Your task to perform on an android device: Toggle the flashlight Image 0: 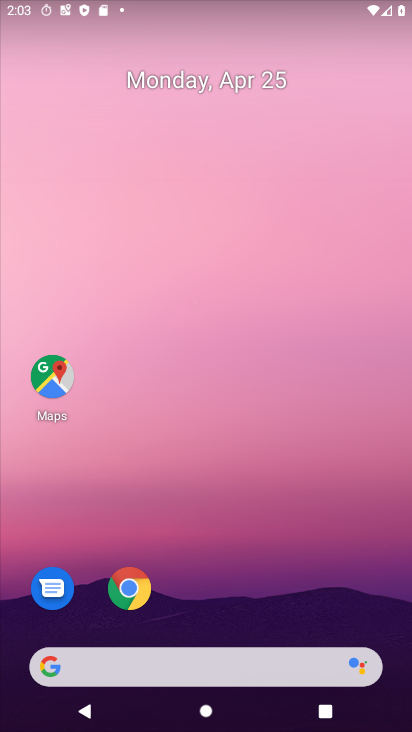
Step 0: drag from (267, 589) to (261, 247)
Your task to perform on an android device: Toggle the flashlight Image 1: 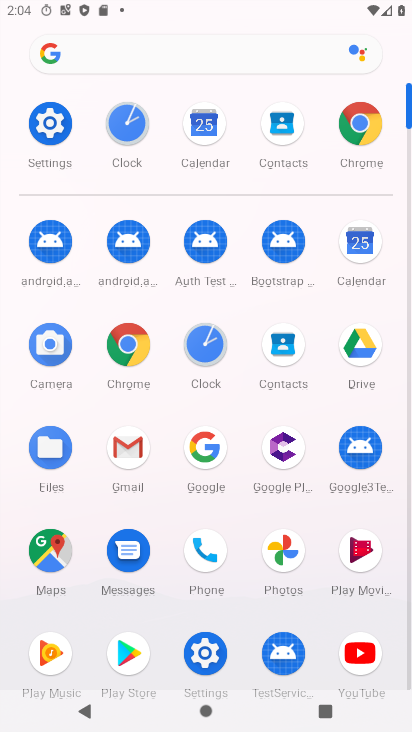
Step 1: task complete